Your task to perform on an android device: turn off improve location accuracy Image 0: 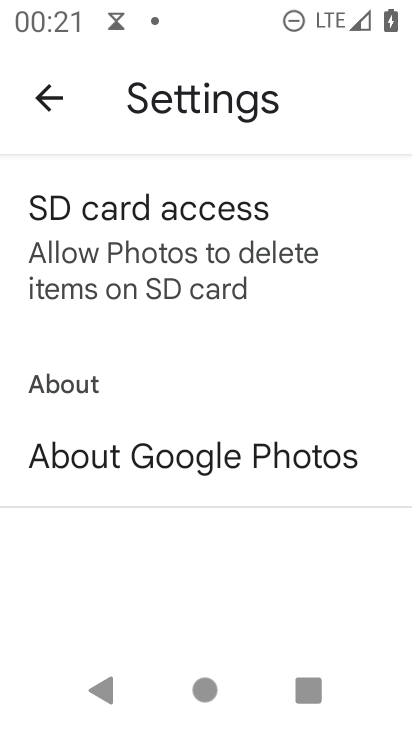
Step 0: press home button
Your task to perform on an android device: turn off improve location accuracy Image 1: 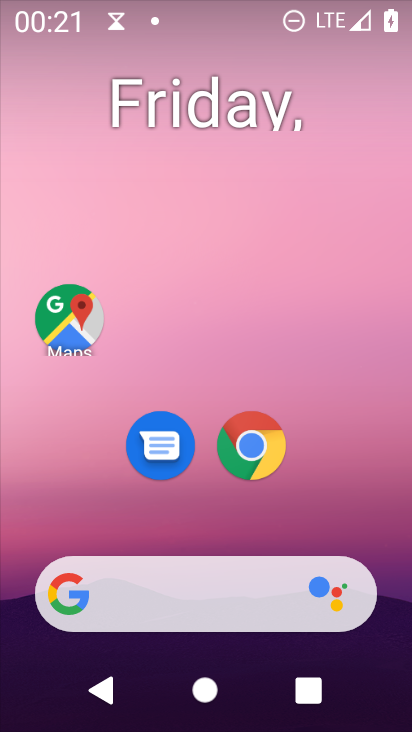
Step 1: drag from (227, 723) to (230, 3)
Your task to perform on an android device: turn off improve location accuracy Image 2: 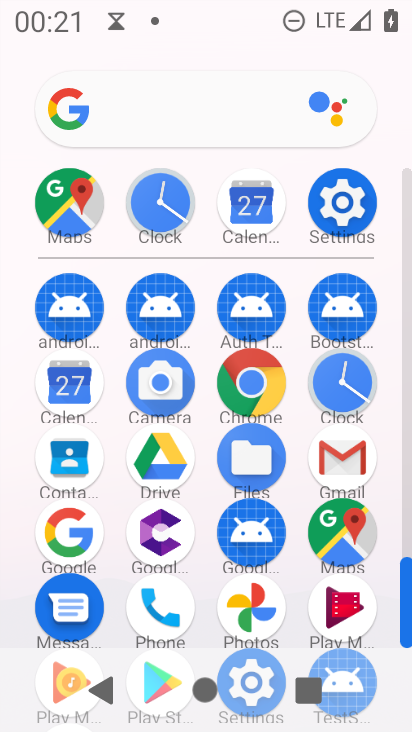
Step 2: click (340, 200)
Your task to perform on an android device: turn off improve location accuracy Image 3: 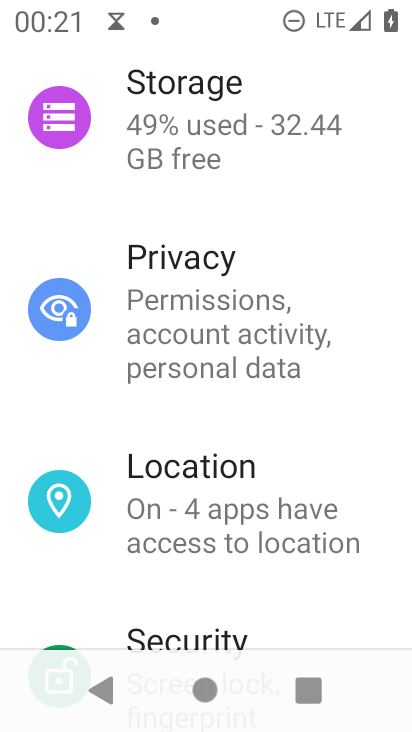
Step 3: click (178, 496)
Your task to perform on an android device: turn off improve location accuracy Image 4: 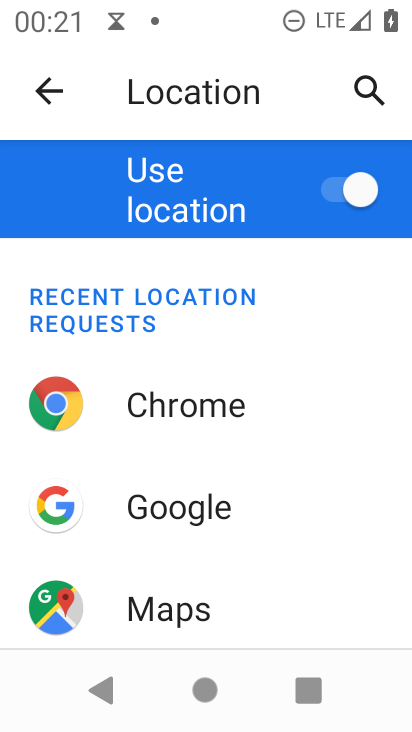
Step 4: drag from (253, 633) to (269, 170)
Your task to perform on an android device: turn off improve location accuracy Image 5: 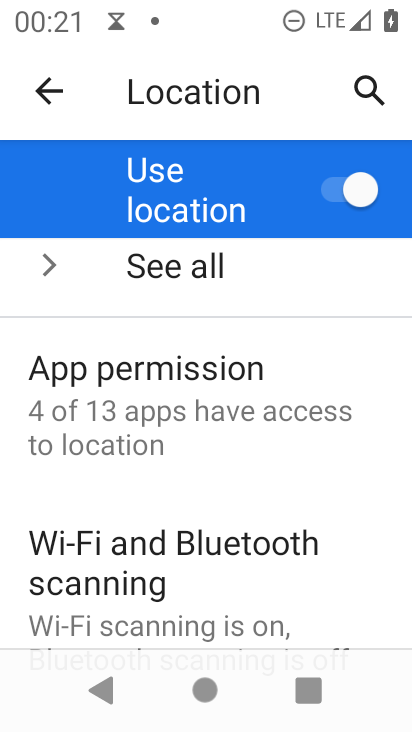
Step 5: drag from (242, 622) to (247, 207)
Your task to perform on an android device: turn off improve location accuracy Image 6: 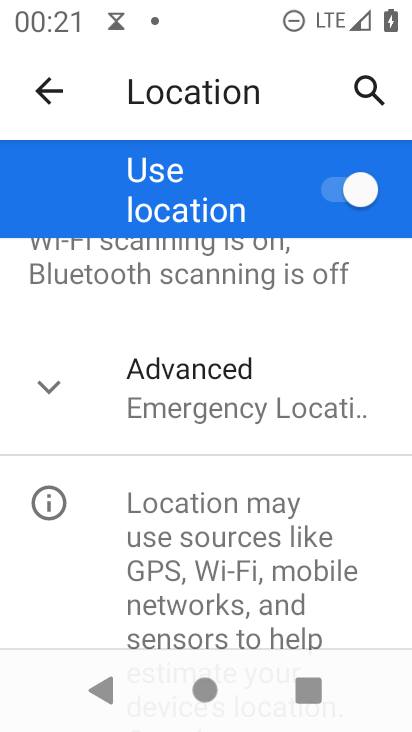
Step 6: click (195, 395)
Your task to perform on an android device: turn off improve location accuracy Image 7: 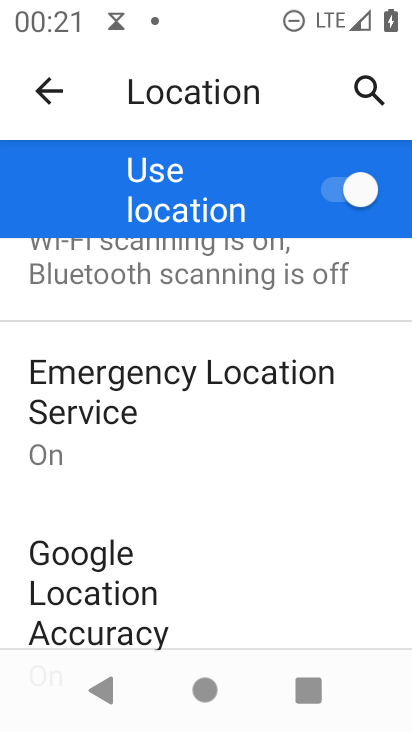
Step 7: drag from (193, 616) to (193, 412)
Your task to perform on an android device: turn off improve location accuracy Image 8: 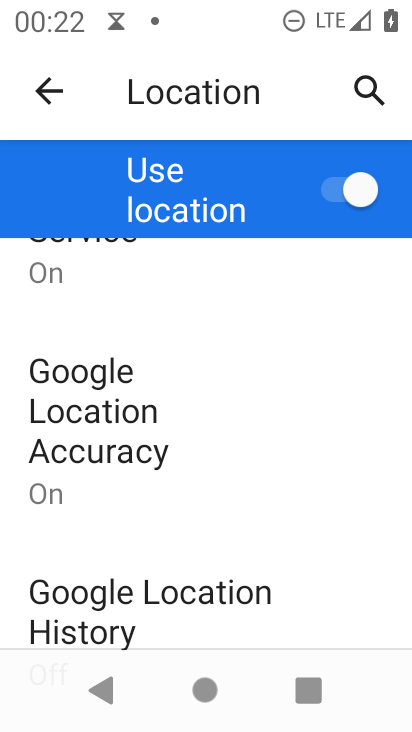
Step 8: click (89, 436)
Your task to perform on an android device: turn off improve location accuracy Image 9: 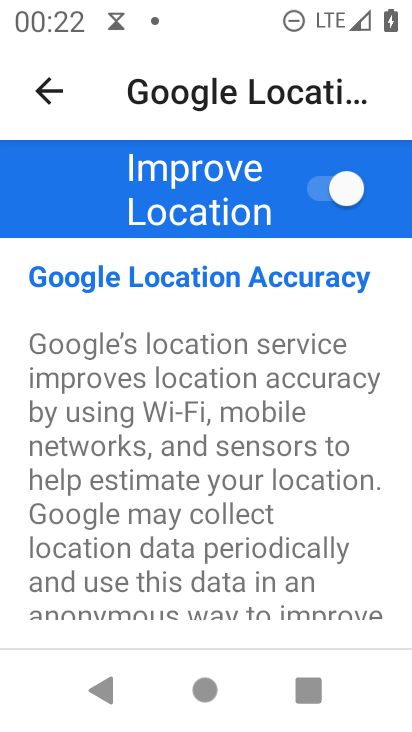
Step 9: click (336, 195)
Your task to perform on an android device: turn off improve location accuracy Image 10: 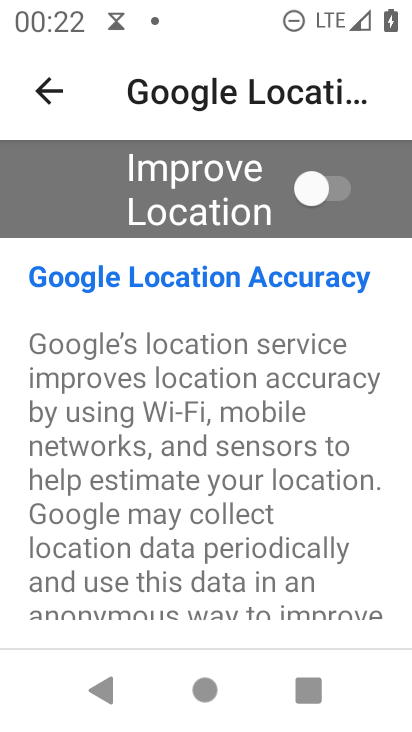
Step 10: task complete